Your task to perform on an android device: turn notification dots off Image 0: 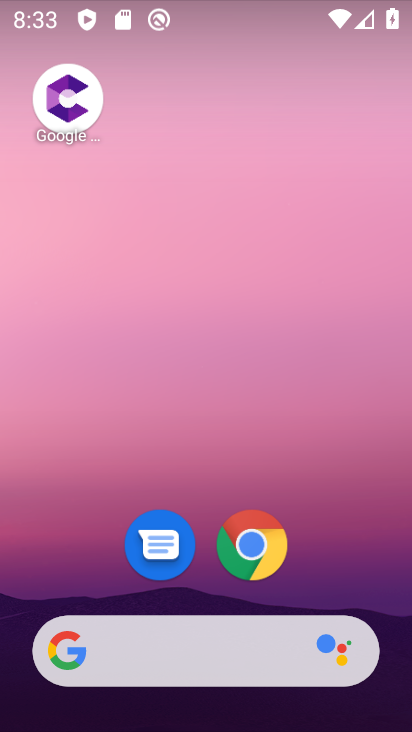
Step 0: drag from (357, 547) to (259, 4)
Your task to perform on an android device: turn notification dots off Image 1: 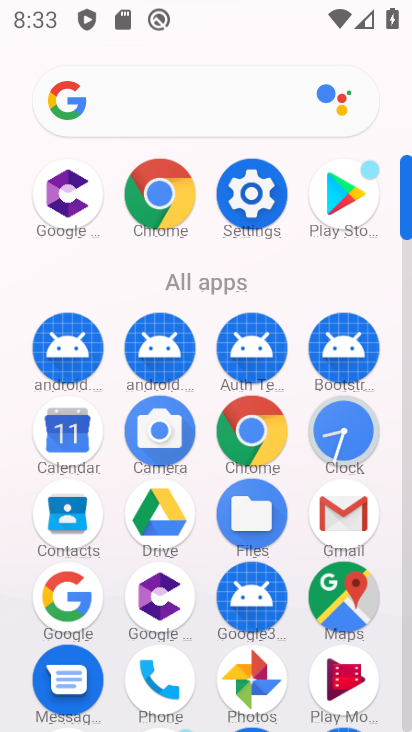
Step 1: click (248, 188)
Your task to perform on an android device: turn notification dots off Image 2: 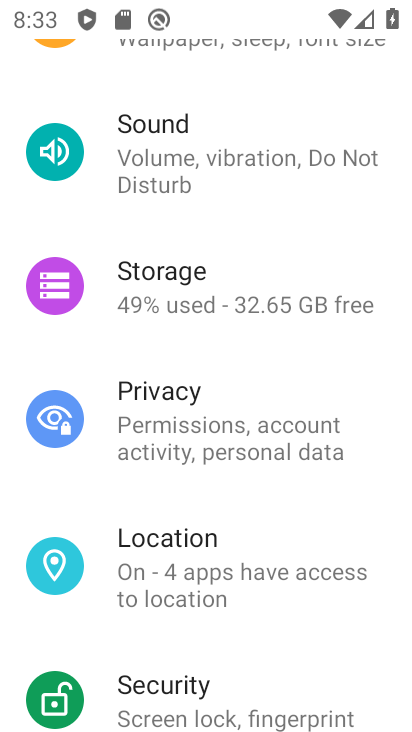
Step 2: drag from (272, 529) to (280, 121)
Your task to perform on an android device: turn notification dots off Image 3: 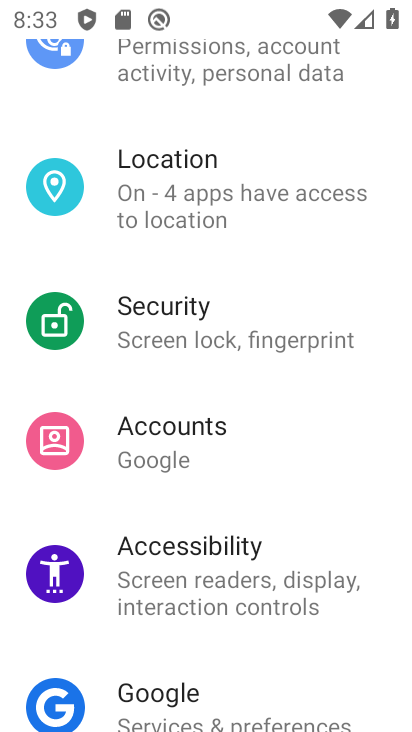
Step 3: drag from (294, 513) to (291, 201)
Your task to perform on an android device: turn notification dots off Image 4: 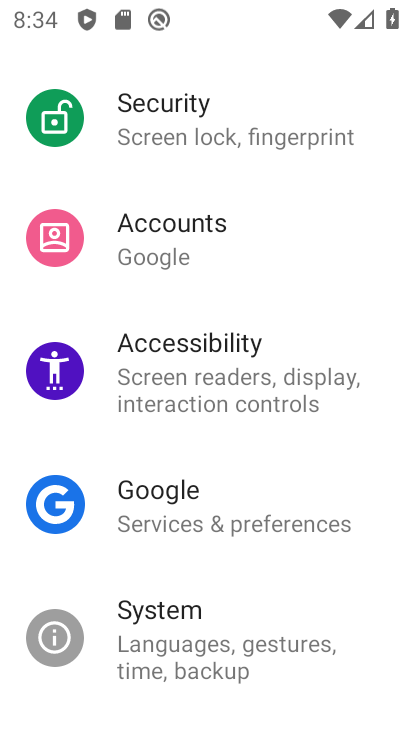
Step 4: drag from (266, 532) to (281, 188)
Your task to perform on an android device: turn notification dots off Image 5: 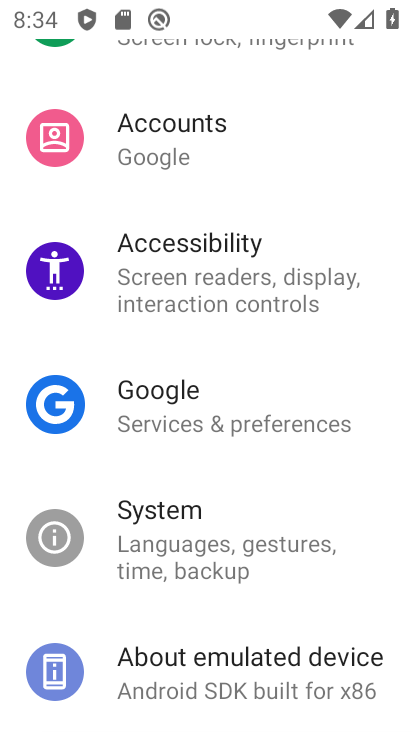
Step 5: drag from (275, 127) to (271, 531)
Your task to perform on an android device: turn notification dots off Image 6: 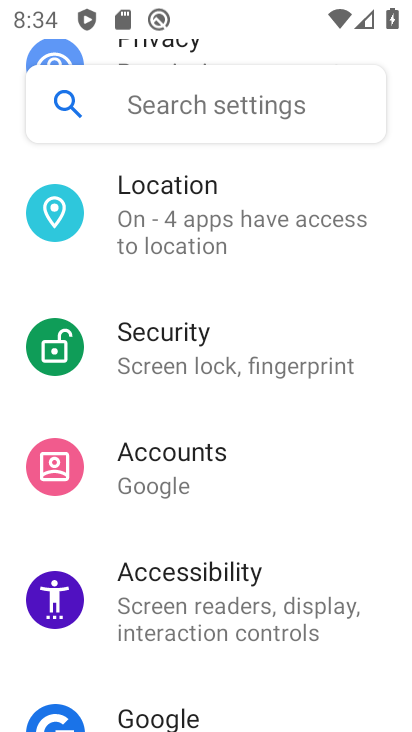
Step 6: drag from (271, 230) to (275, 560)
Your task to perform on an android device: turn notification dots off Image 7: 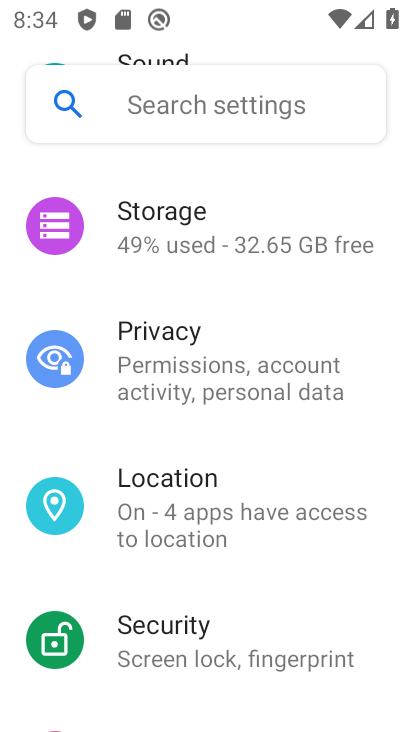
Step 7: drag from (271, 268) to (268, 569)
Your task to perform on an android device: turn notification dots off Image 8: 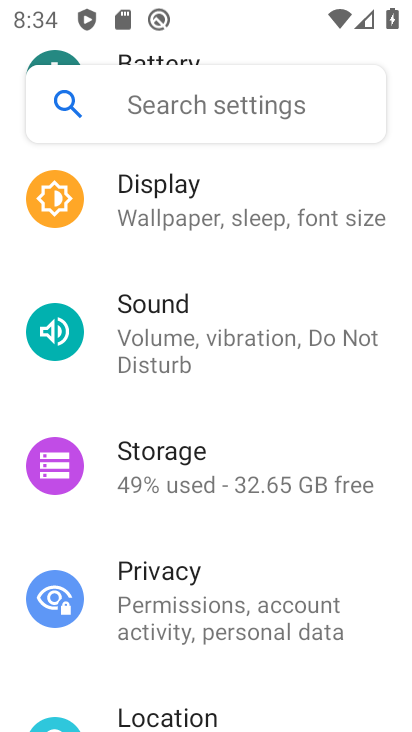
Step 8: drag from (260, 219) to (274, 582)
Your task to perform on an android device: turn notification dots off Image 9: 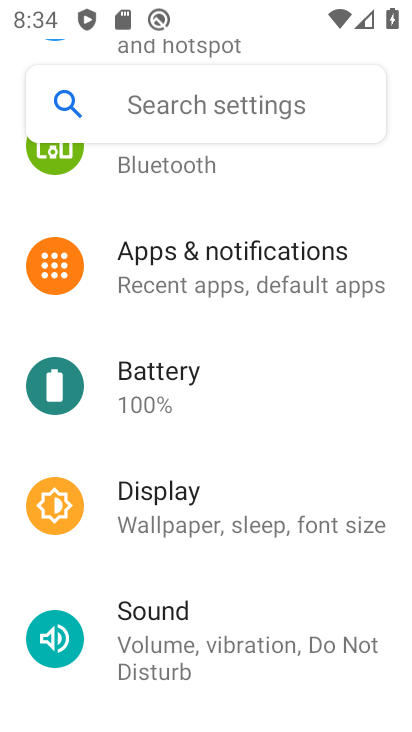
Step 9: click (250, 273)
Your task to perform on an android device: turn notification dots off Image 10: 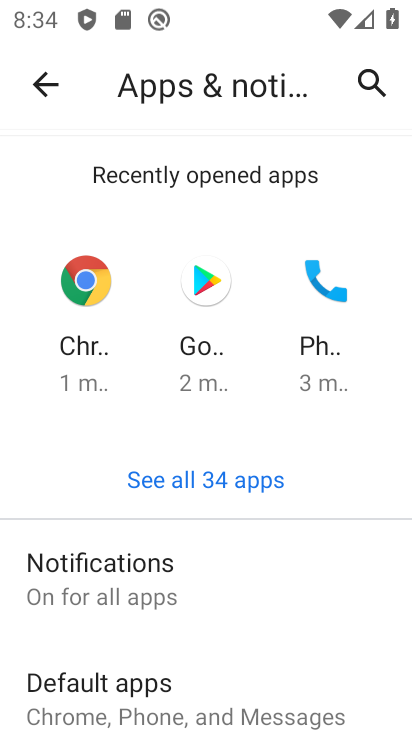
Step 10: click (151, 585)
Your task to perform on an android device: turn notification dots off Image 11: 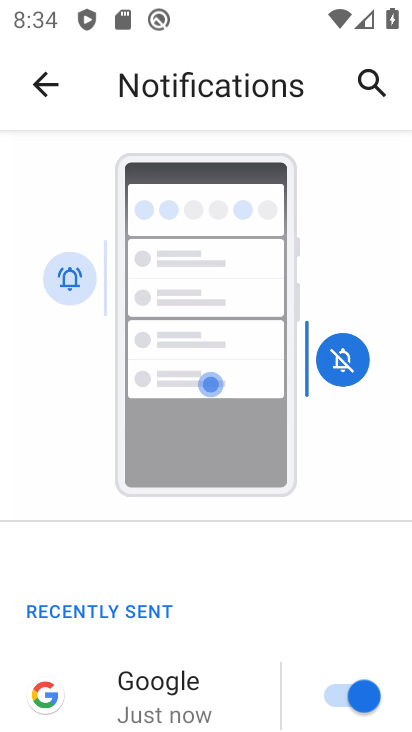
Step 11: drag from (221, 624) to (218, 187)
Your task to perform on an android device: turn notification dots off Image 12: 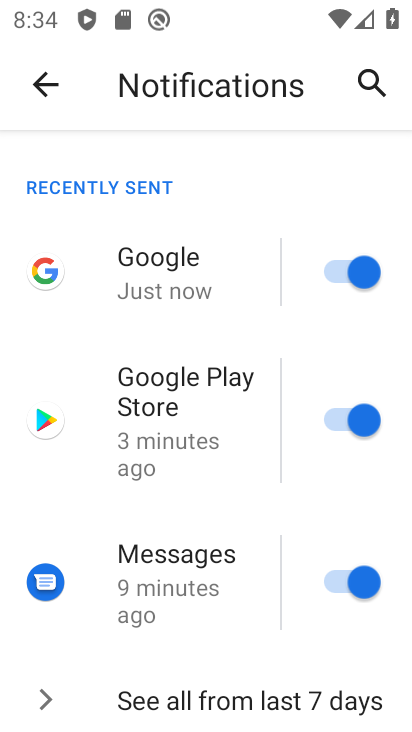
Step 12: drag from (196, 573) to (200, 216)
Your task to perform on an android device: turn notification dots off Image 13: 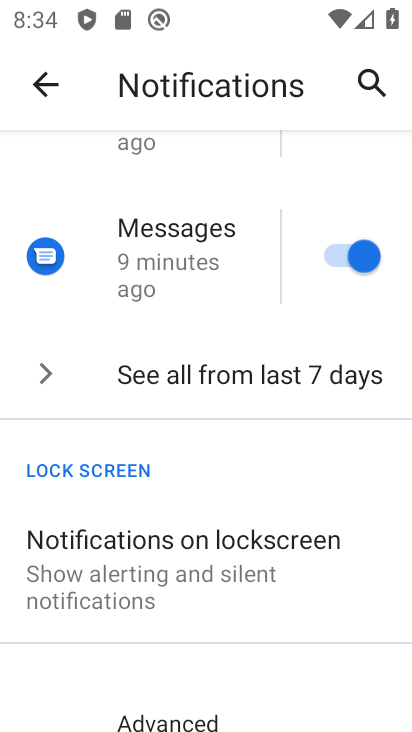
Step 13: drag from (197, 539) to (205, 185)
Your task to perform on an android device: turn notification dots off Image 14: 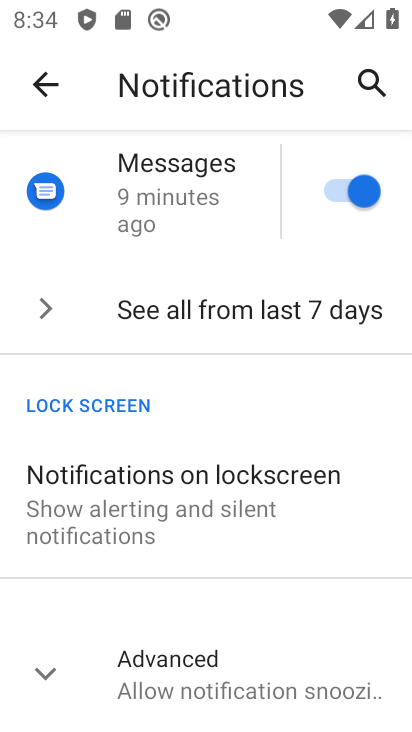
Step 14: click (124, 649)
Your task to perform on an android device: turn notification dots off Image 15: 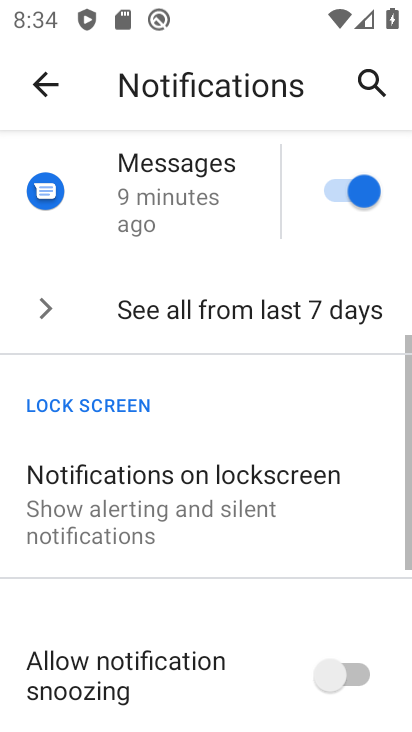
Step 15: drag from (264, 582) to (271, 208)
Your task to perform on an android device: turn notification dots off Image 16: 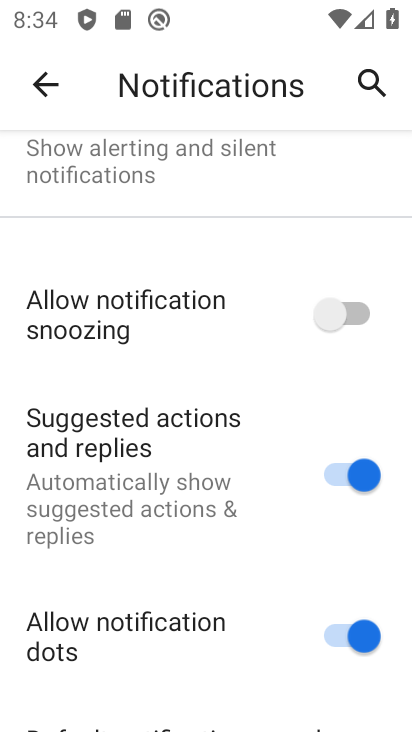
Step 16: drag from (160, 625) to (156, 287)
Your task to perform on an android device: turn notification dots off Image 17: 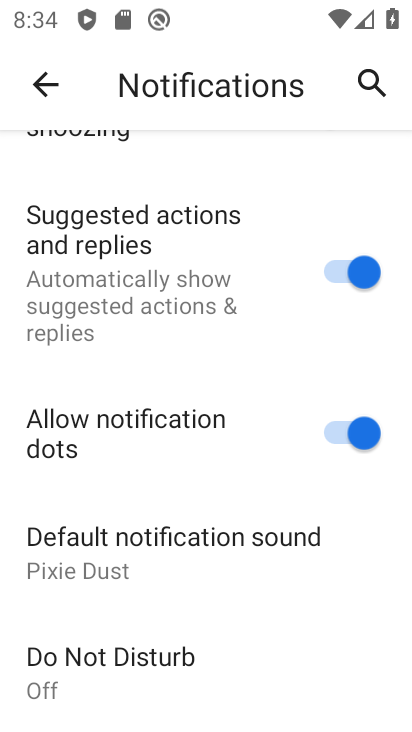
Step 17: click (351, 427)
Your task to perform on an android device: turn notification dots off Image 18: 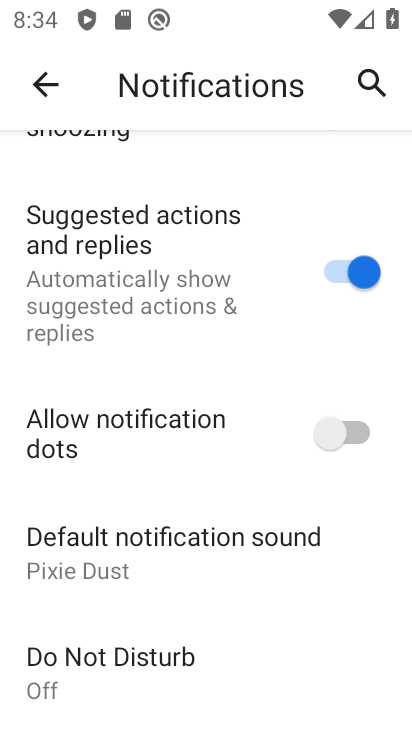
Step 18: task complete